Your task to perform on an android device: find photos in the google photos app Image 0: 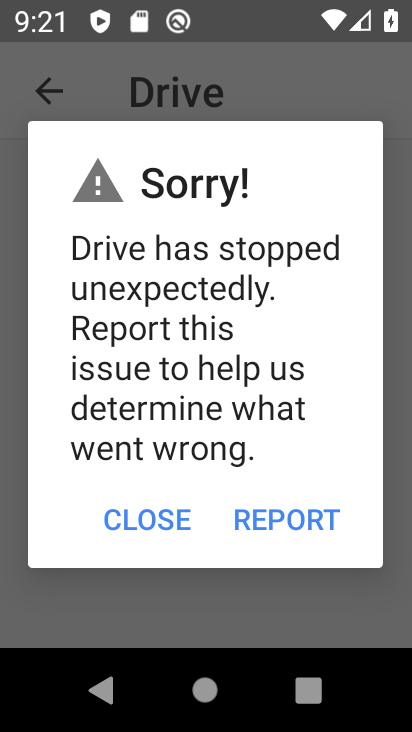
Step 0: press home button
Your task to perform on an android device: find photos in the google photos app Image 1: 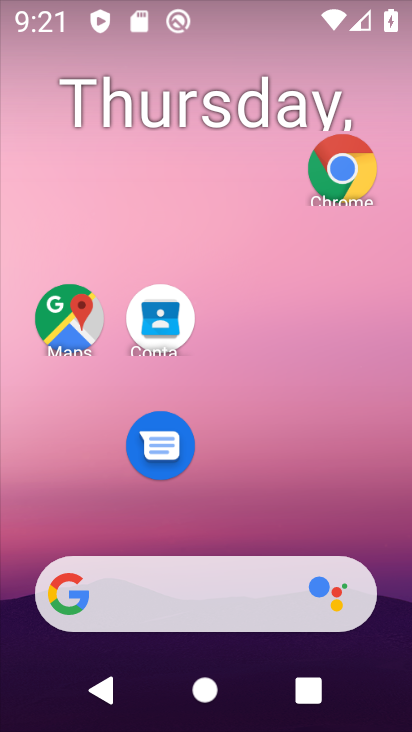
Step 1: drag from (253, 631) to (332, 242)
Your task to perform on an android device: find photos in the google photos app Image 2: 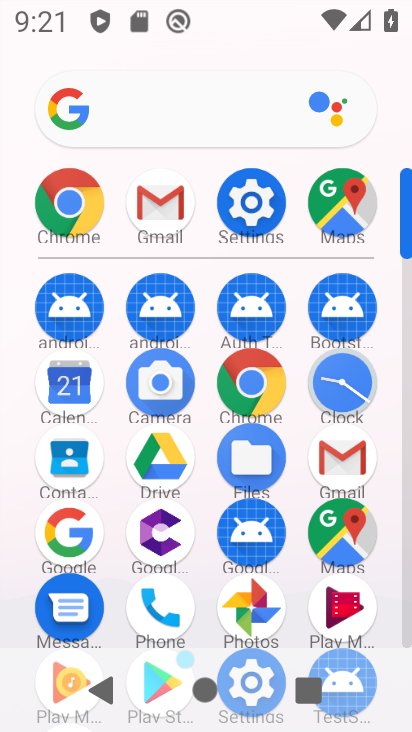
Step 2: click (240, 594)
Your task to perform on an android device: find photos in the google photos app Image 3: 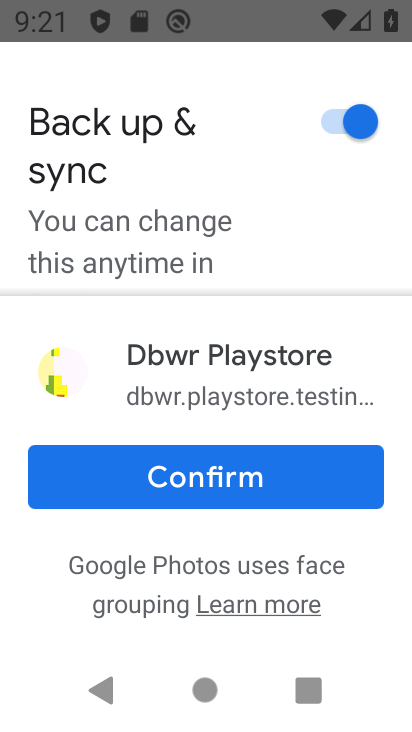
Step 3: click (252, 478)
Your task to perform on an android device: find photos in the google photos app Image 4: 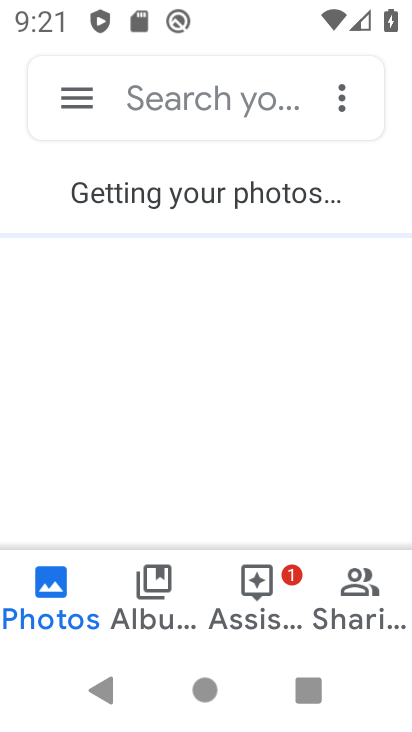
Step 4: task complete